Your task to perform on an android device: change alarm snooze length Image 0: 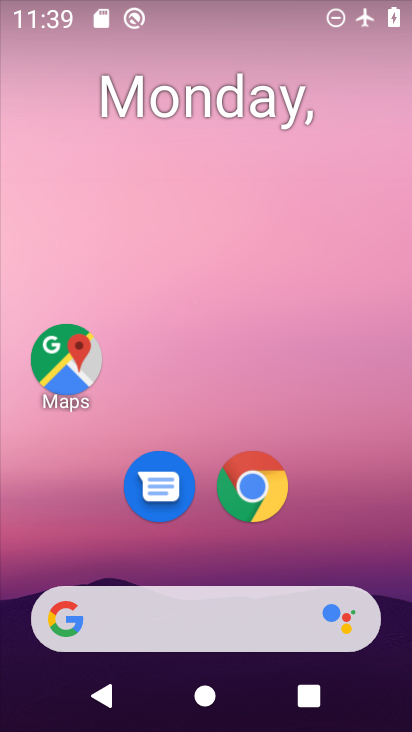
Step 0: press home button
Your task to perform on an android device: change alarm snooze length Image 1: 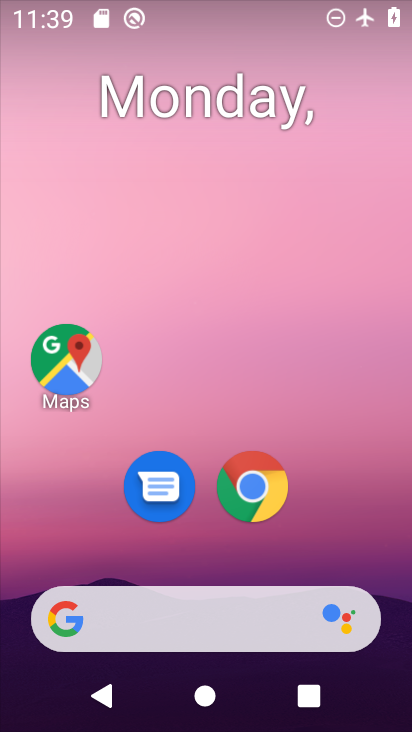
Step 1: drag from (17, 653) to (343, 196)
Your task to perform on an android device: change alarm snooze length Image 2: 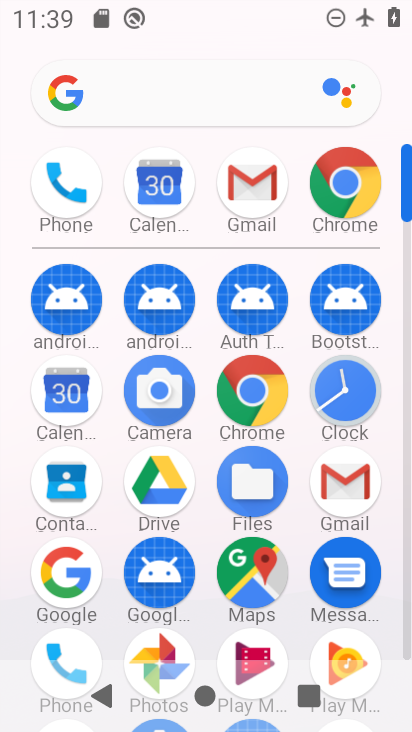
Step 2: click (320, 401)
Your task to perform on an android device: change alarm snooze length Image 3: 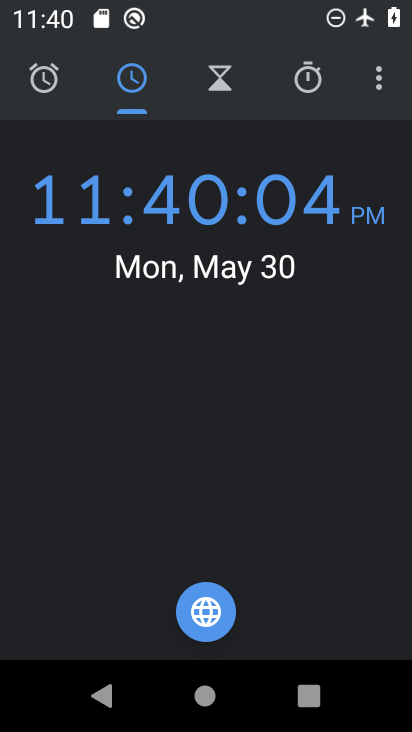
Step 3: click (377, 84)
Your task to perform on an android device: change alarm snooze length Image 4: 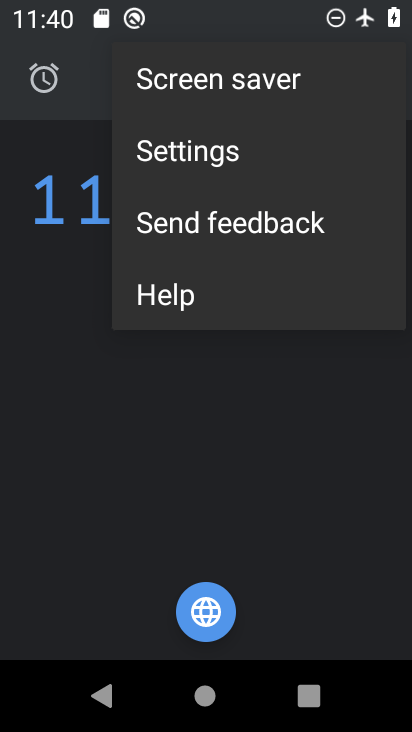
Step 4: click (211, 155)
Your task to perform on an android device: change alarm snooze length Image 5: 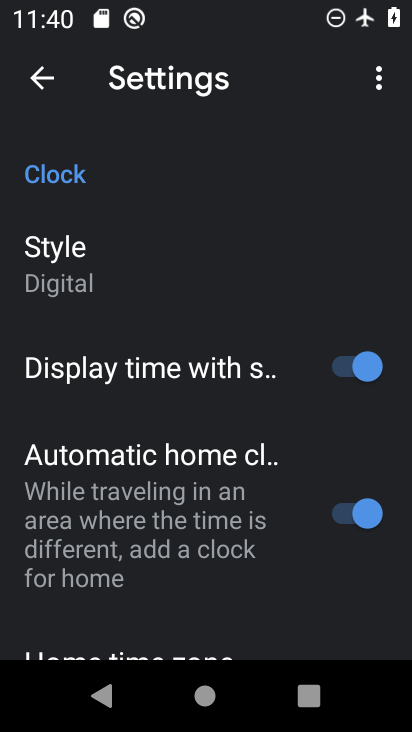
Step 5: drag from (8, 621) to (241, 228)
Your task to perform on an android device: change alarm snooze length Image 6: 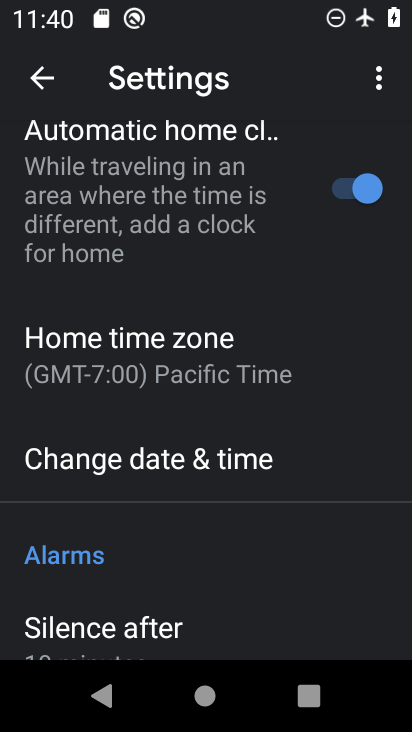
Step 6: drag from (9, 624) to (178, 316)
Your task to perform on an android device: change alarm snooze length Image 7: 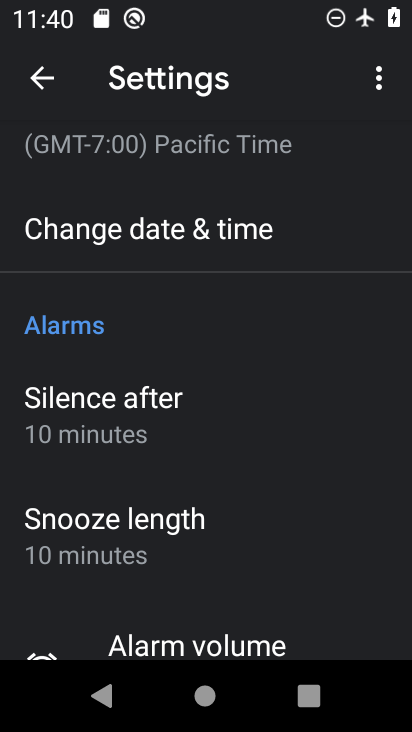
Step 7: click (120, 539)
Your task to perform on an android device: change alarm snooze length Image 8: 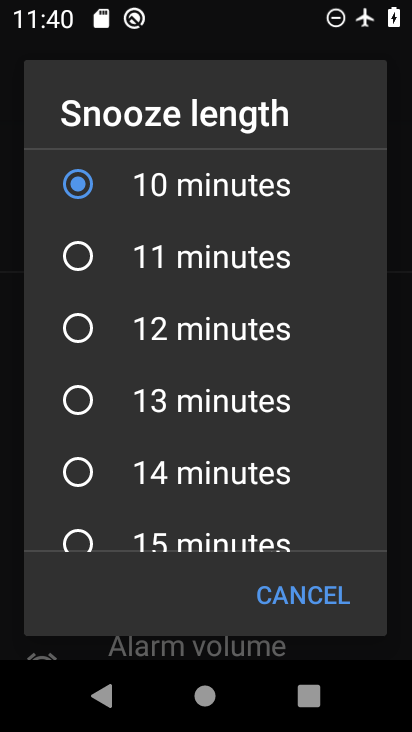
Step 8: click (129, 262)
Your task to perform on an android device: change alarm snooze length Image 9: 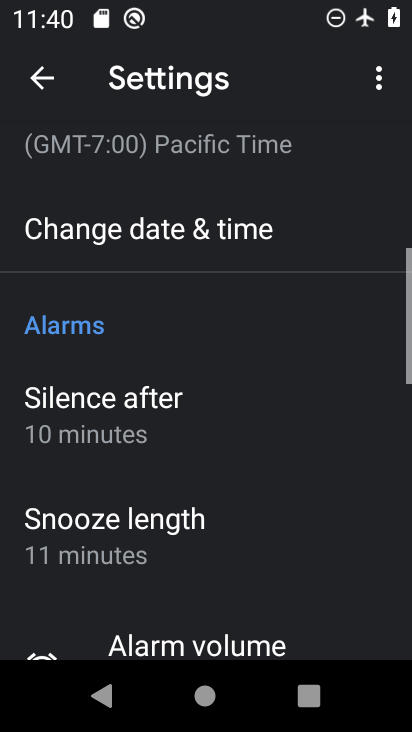
Step 9: task complete